Your task to perform on an android device: What's the weather today? Image 0: 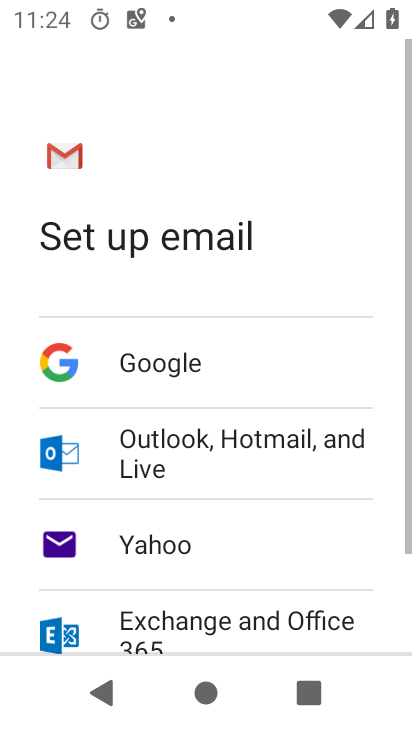
Step 0: press home button
Your task to perform on an android device: What's the weather today? Image 1: 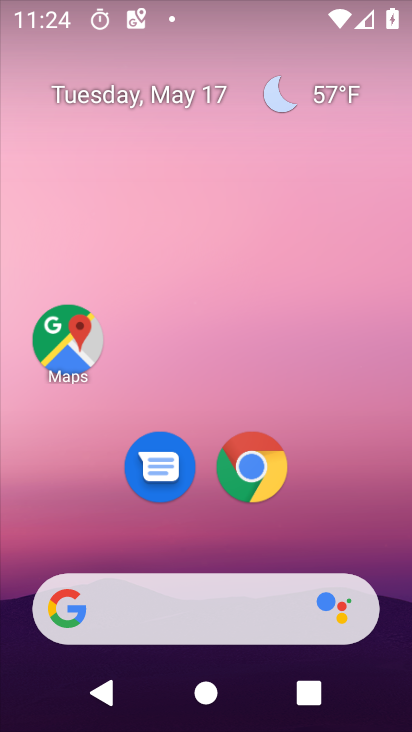
Step 1: click (189, 195)
Your task to perform on an android device: What's the weather today? Image 2: 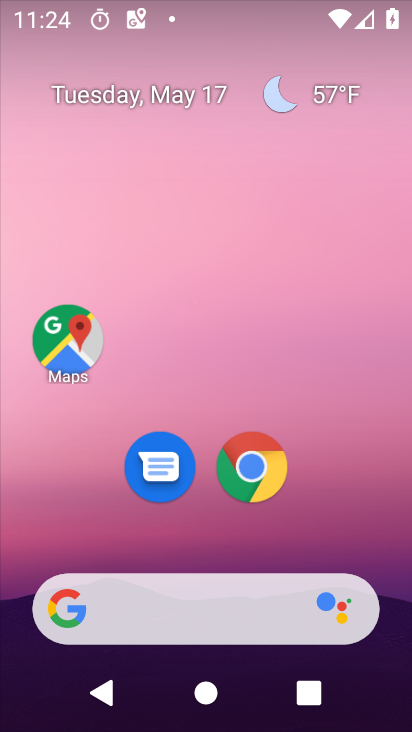
Step 2: drag from (218, 565) to (225, 170)
Your task to perform on an android device: What's the weather today? Image 3: 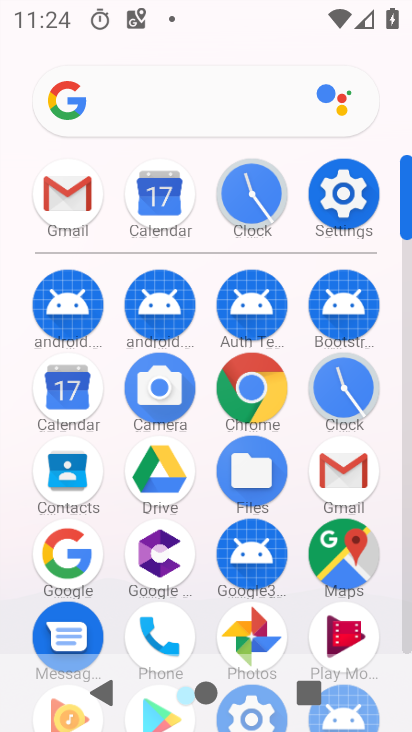
Step 3: click (63, 562)
Your task to perform on an android device: What's the weather today? Image 4: 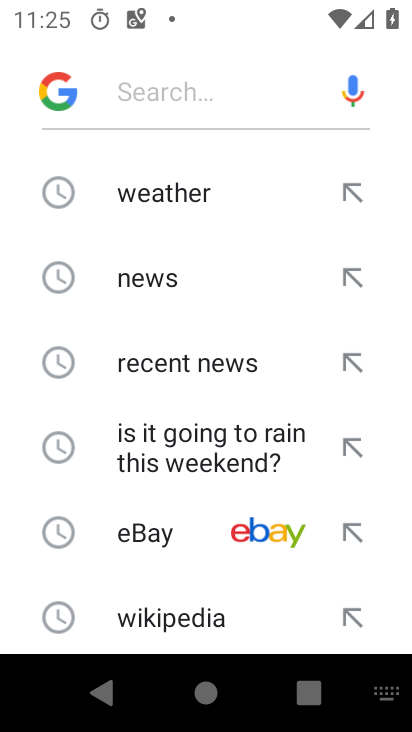
Step 4: click (177, 191)
Your task to perform on an android device: What's the weather today? Image 5: 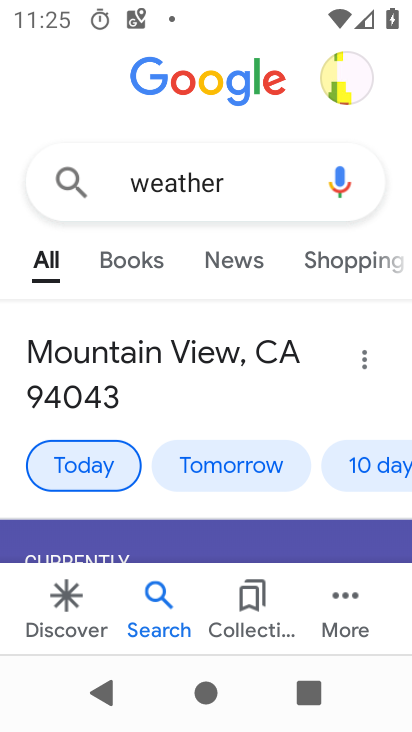
Step 5: task complete